Your task to perform on an android device: turn off notifications in google photos Image 0: 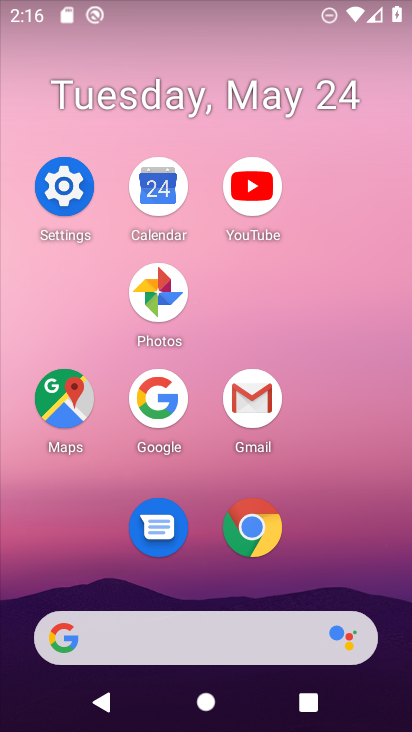
Step 0: click (158, 296)
Your task to perform on an android device: turn off notifications in google photos Image 1: 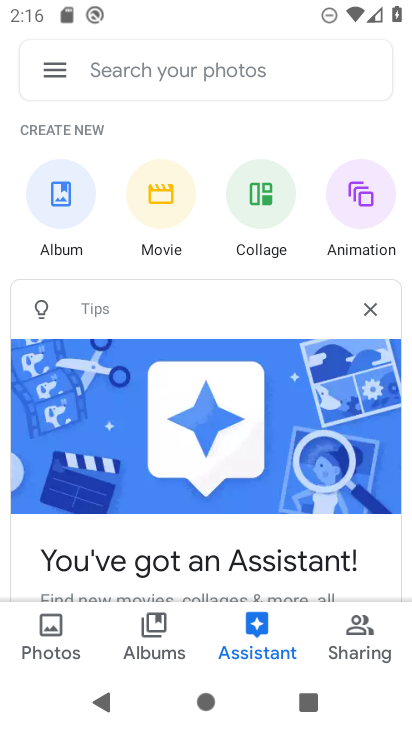
Step 1: click (38, 65)
Your task to perform on an android device: turn off notifications in google photos Image 2: 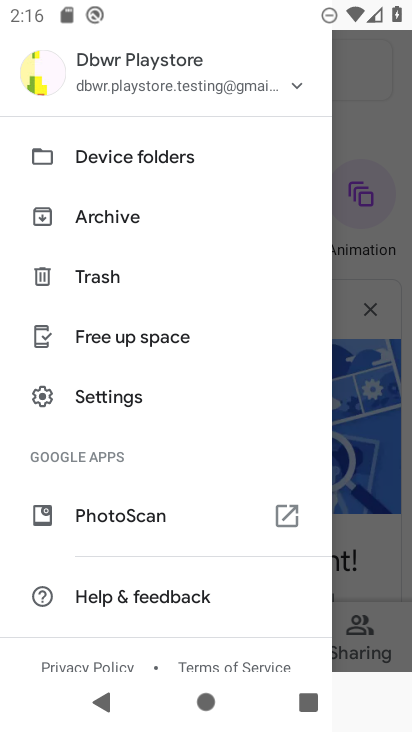
Step 2: click (179, 406)
Your task to perform on an android device: turn off notifications in google photos Image 3: 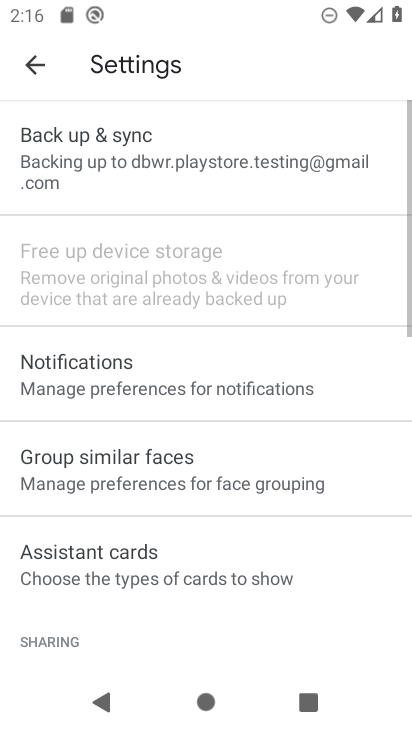
Step 3: click (205, 384)
Your task to perform on an android device: turn off notifications in google photos Image 4: 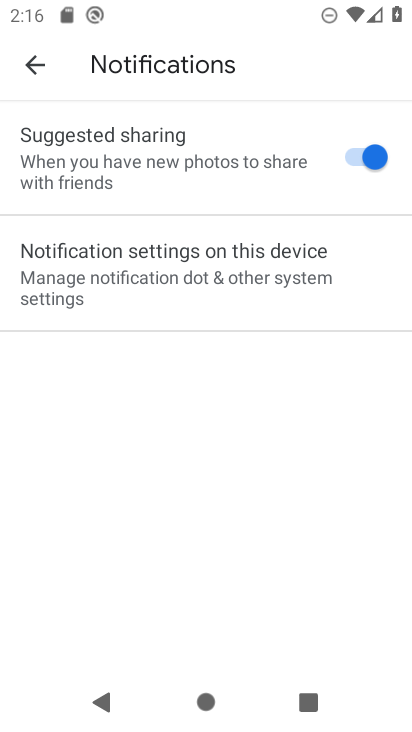
Step 4: click (243, 292)
Your task to perform on an android device: turn off notifications in google photos Image 5: 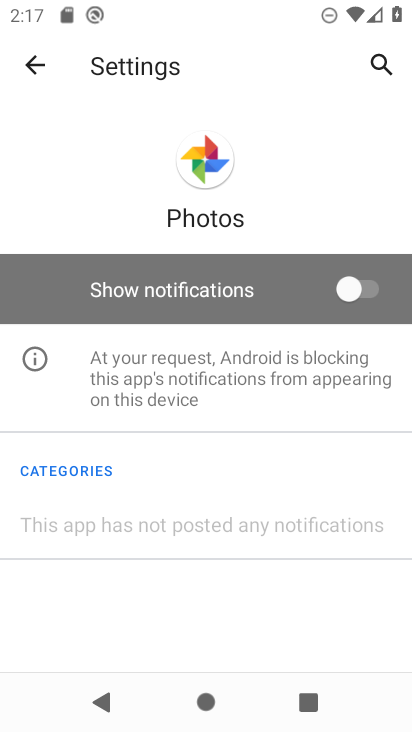
Step 5: task complete